Your task to perform on an android device: see tabs open on other devices in the chrome app Image 0: 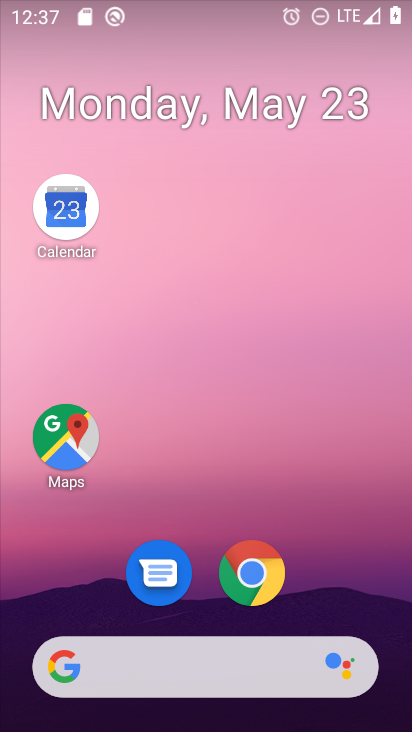
Step 0: click (241, 572)
Your task to perform on an android device: see tabs open on other devices in the chrome app Image 1: 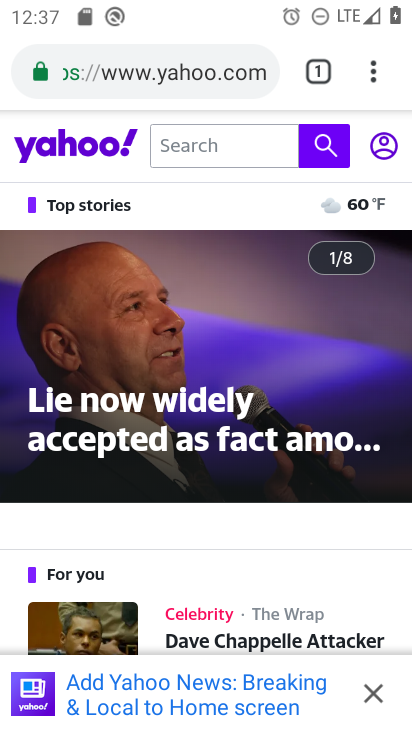
Step 1: click (373, 86)
Your task to perform on an android device: see tabs open on other devices in the chrome app Image 2: 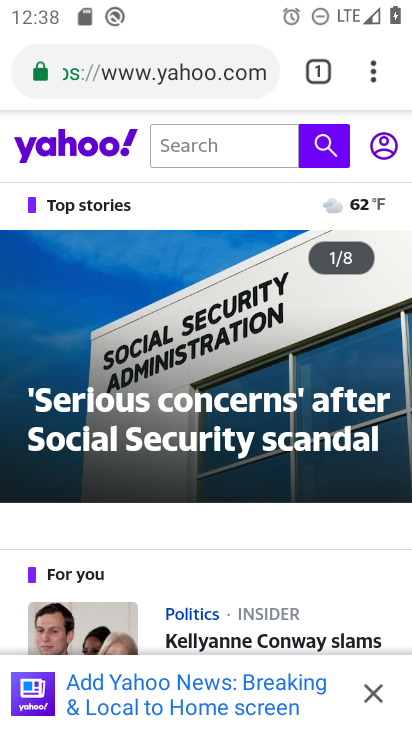
Step 2: click (371, 85)
Your task to perform on an android device: see tabs open on other devices in the chrome app Image 3: 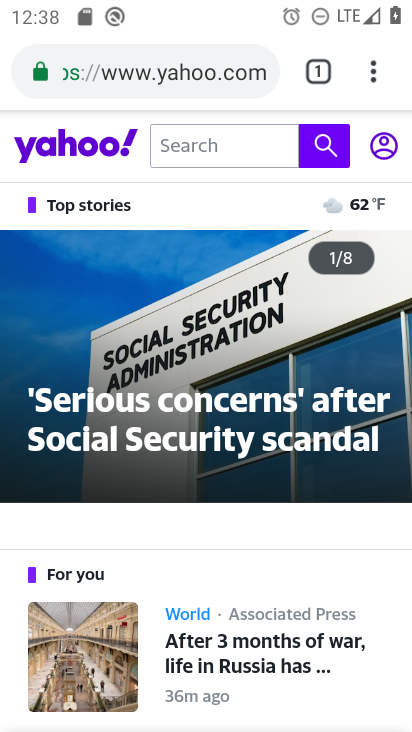
Step 3: click (370, 85)
Your task to perform on an android device: see tabs open on other devices in the chrome app Image 4: 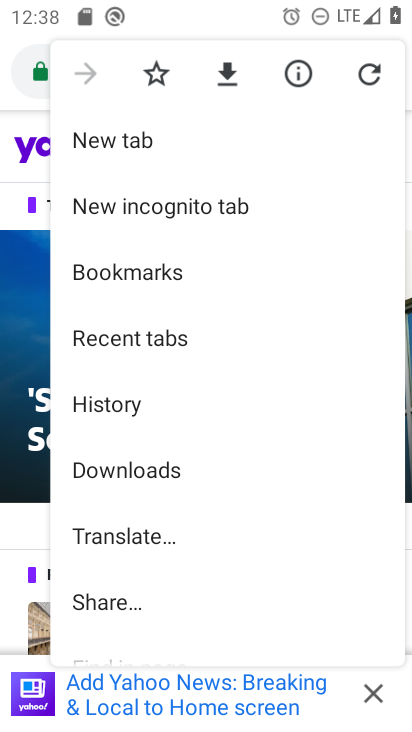
Step 4: click (176, 345)
Your task to perform on an android device: see tabs open on other devices in the chrome app Image 5: 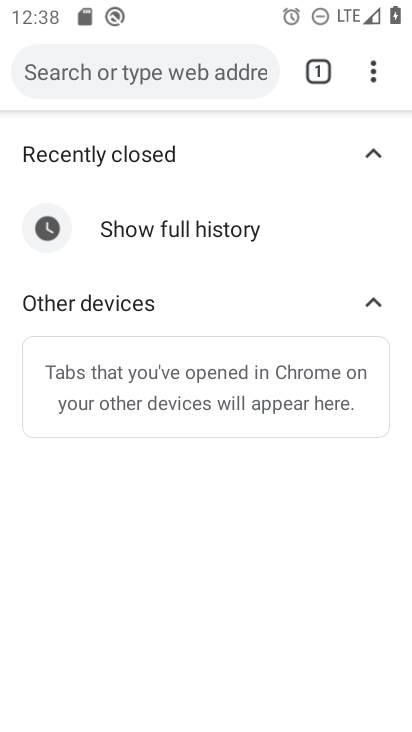
Step 5: task complete